Your task to perform on an android device: Do I have any events tomorrow? Image 0: 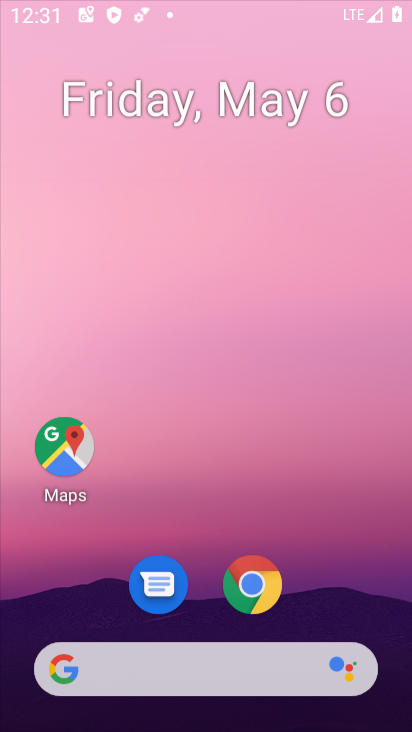
Step 0: drag from (202, 339) to (240, 74)
Your task to perform on an android device: Do I have any events tomorrow? Image 1: 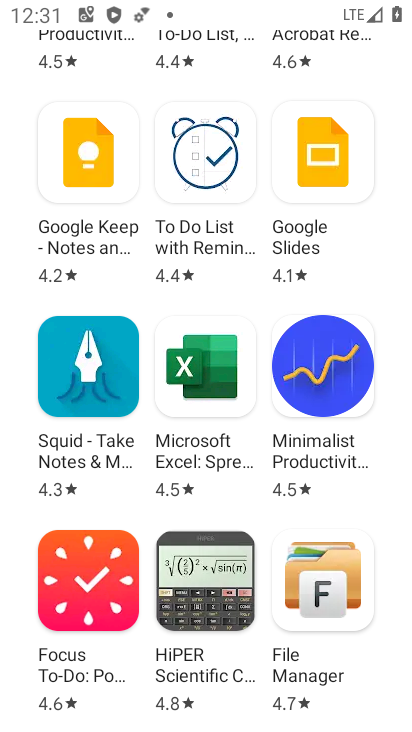
Step 1: press back button
Your task to perform on an android device: Do I have any events tomorrow? Image 2: 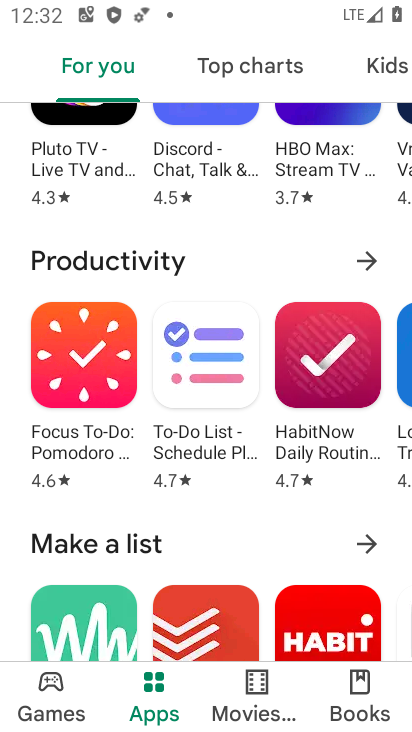
Step 2: press back button
Your task to perform on an android device: Do I have any events tomorrow? Image 3: 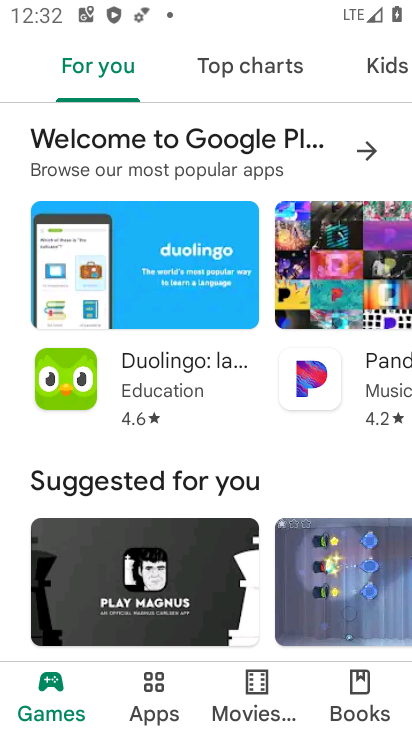
Step 3: press back button
Your task to perform on an android device: Do I have any events tomorrow? Image 4: 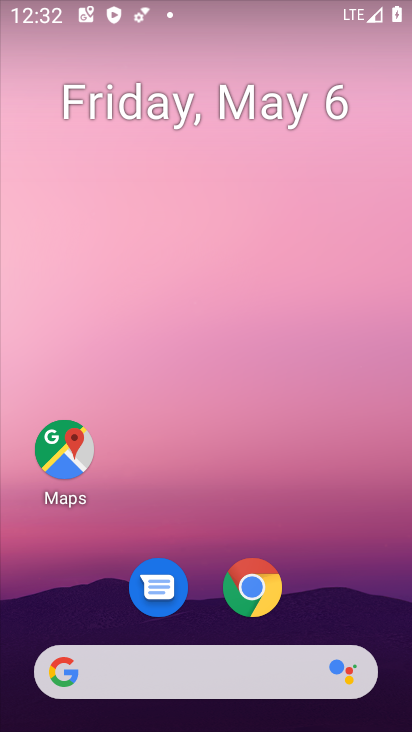
Step 4: drag from (193, 643) to (281, 116)
Your task to perform on an android device: Do I have any events tomorrow? Image 5: 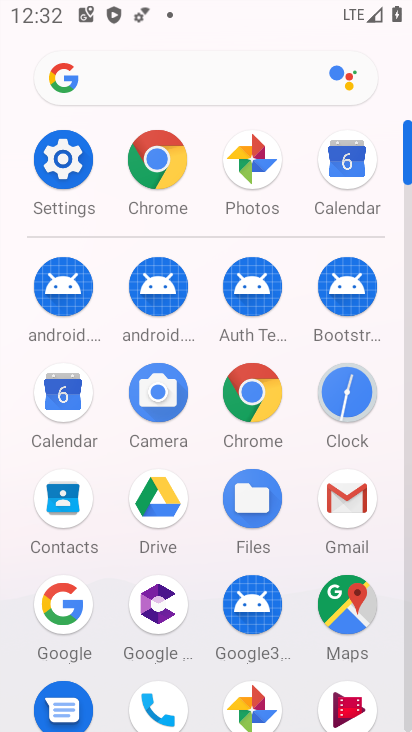
Step 5: click (348, 168)
Your task to perform on an android device: Do I have any events tomorrow? Image 6: 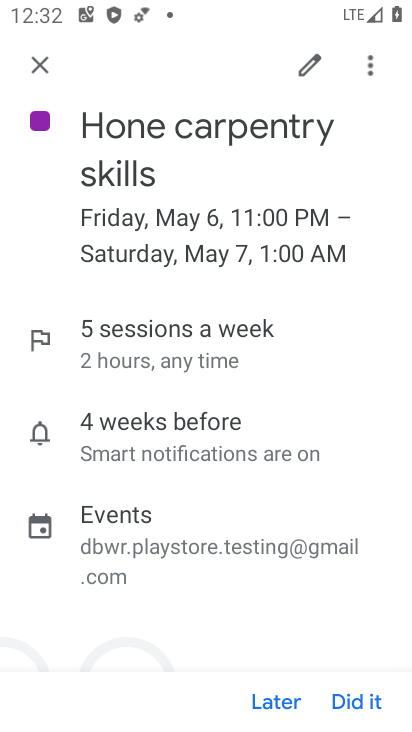
Step 6: click (44, 45)
Your task to perform on an android device: Do I have any events tomorrow? Image 7: 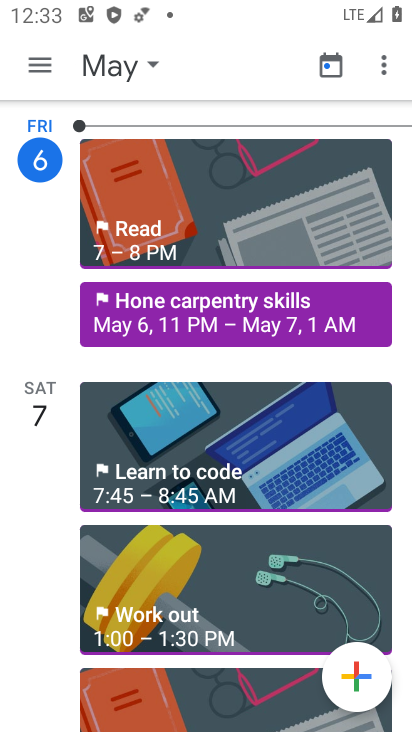
Step 7: drag from (205, 605) to (250, 427)
Your task to perform on an android device: Do I have any events tomorrow? Image 8: 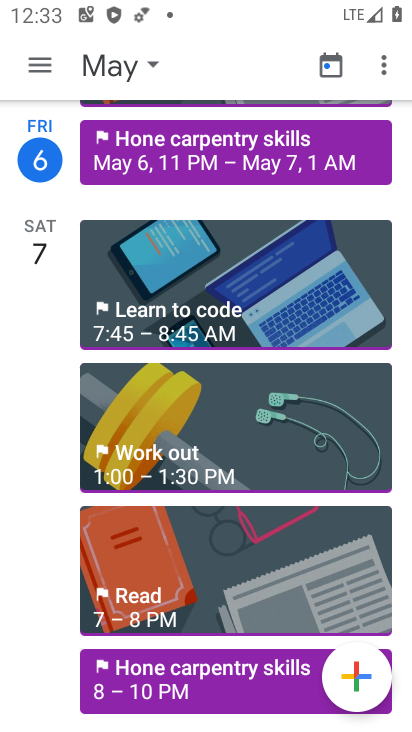
Step 8: click (236, 460)
Your task to perform on an android device: Do I have any events tomorrow? Image 9: 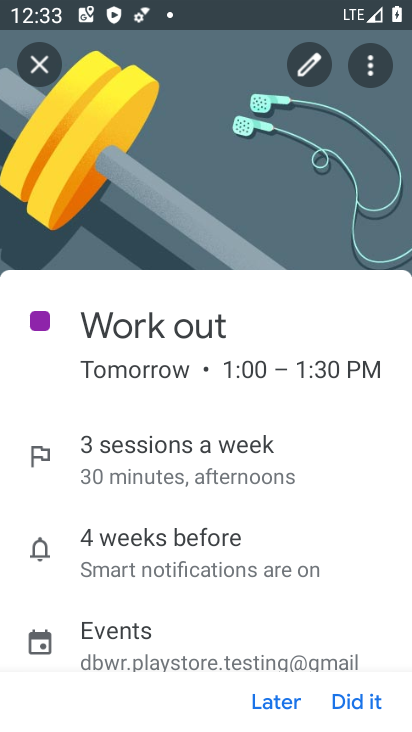
Step 9: task complete